Your task to perform on an android device: open app "Reddit" (install if not already installed) Image 0: 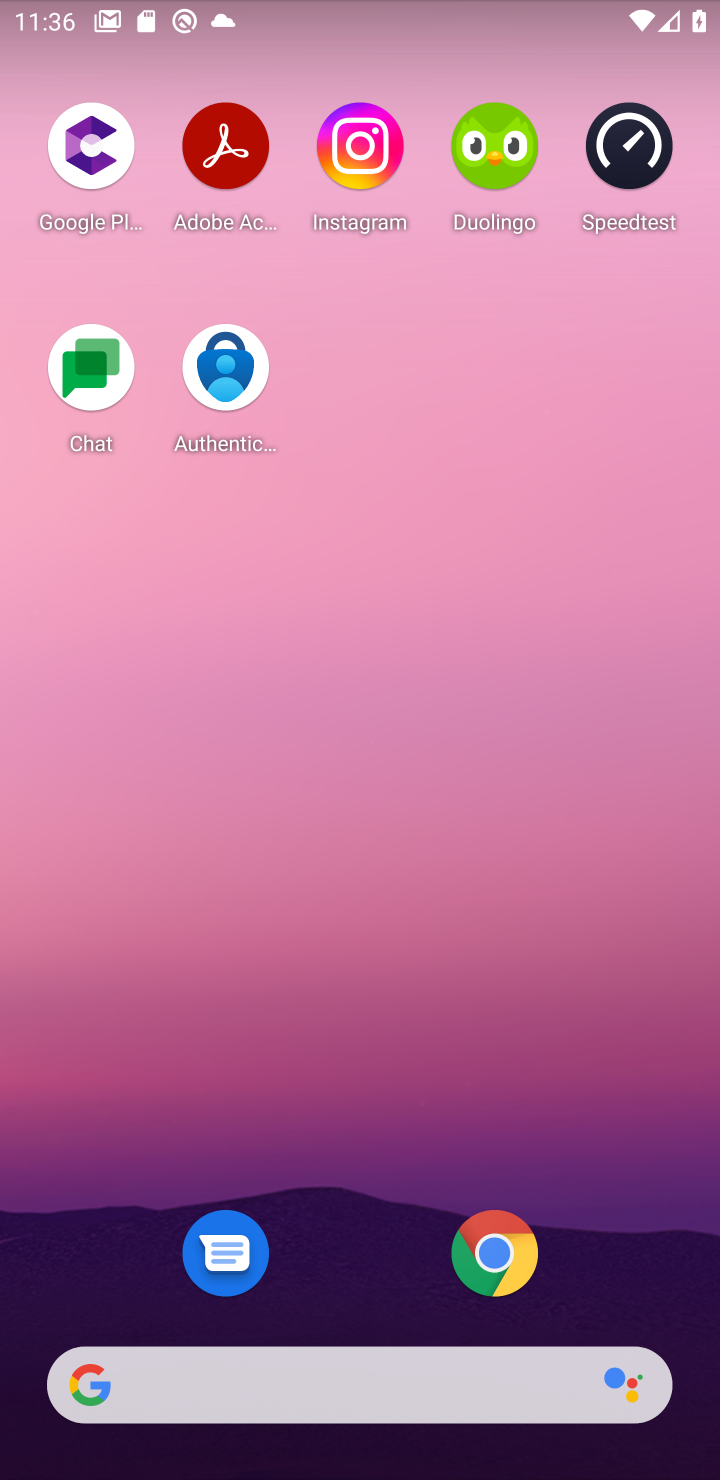
Step 0: drag from (460, 1016) to (464, 215)
Your task to perform on an android device: open app "Reddit" (install if not already installed) Image 1: 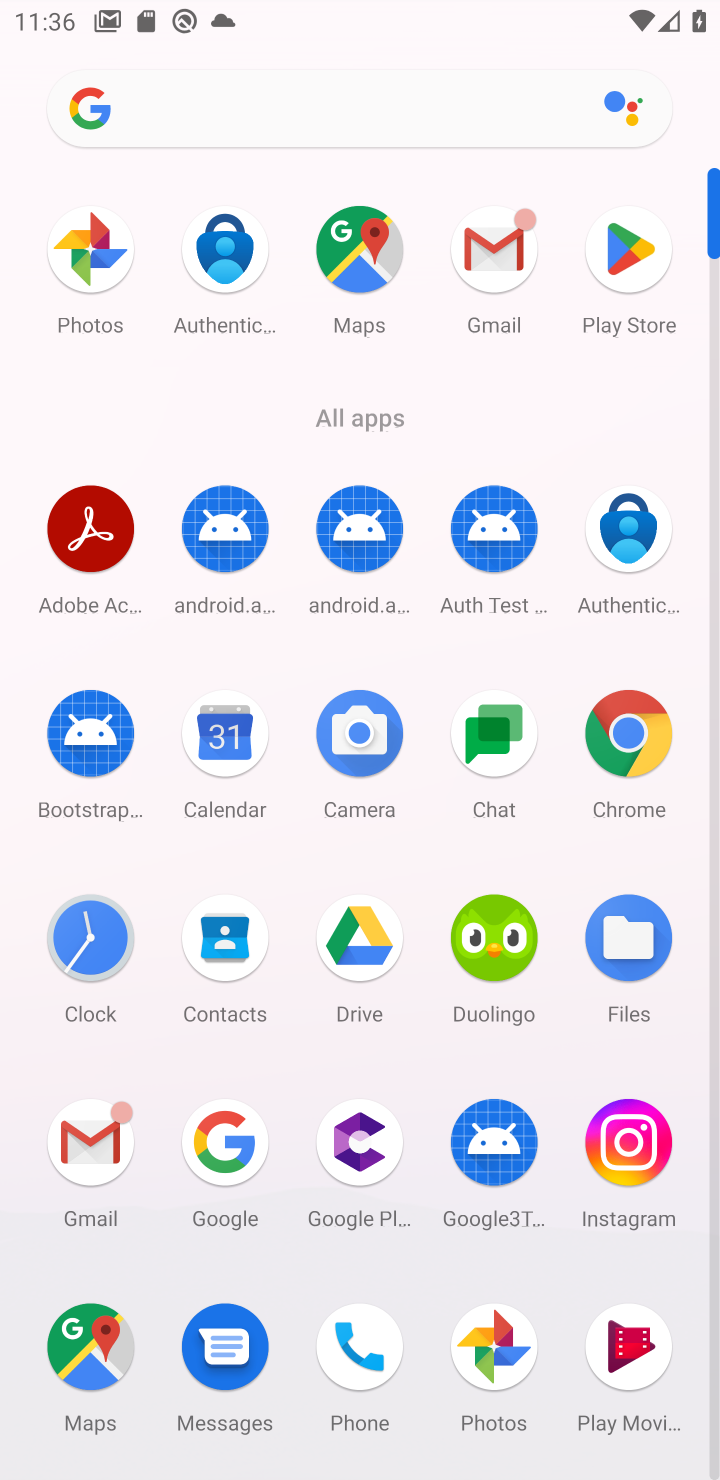
Step 1: drag from (422, 1259) to (505, 378)
Your task to perform on an android device: open app "Reddit" (install if not already installed) Image 2: 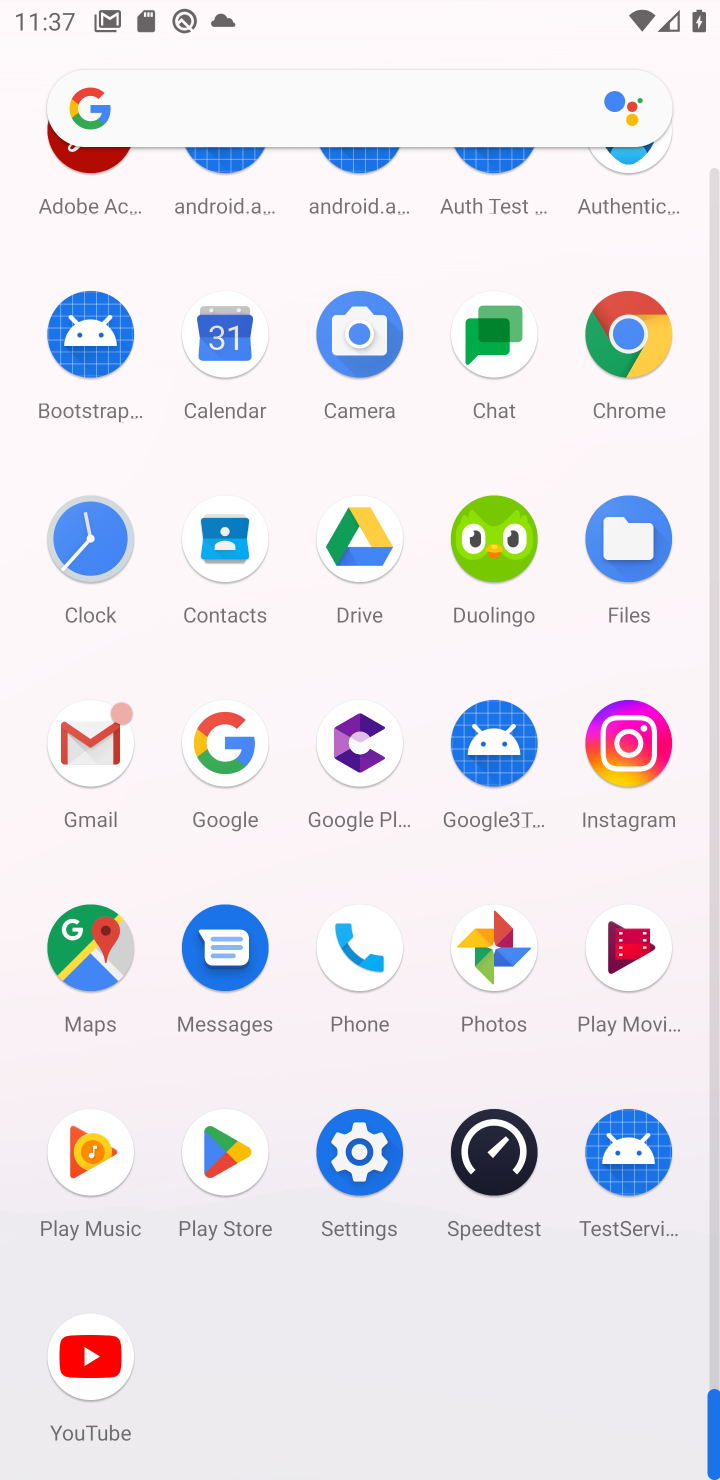
Step 2: click (223, 1196)
Your task to perform on an android device: open app "Reddit" (install if not already installed) Image 3: 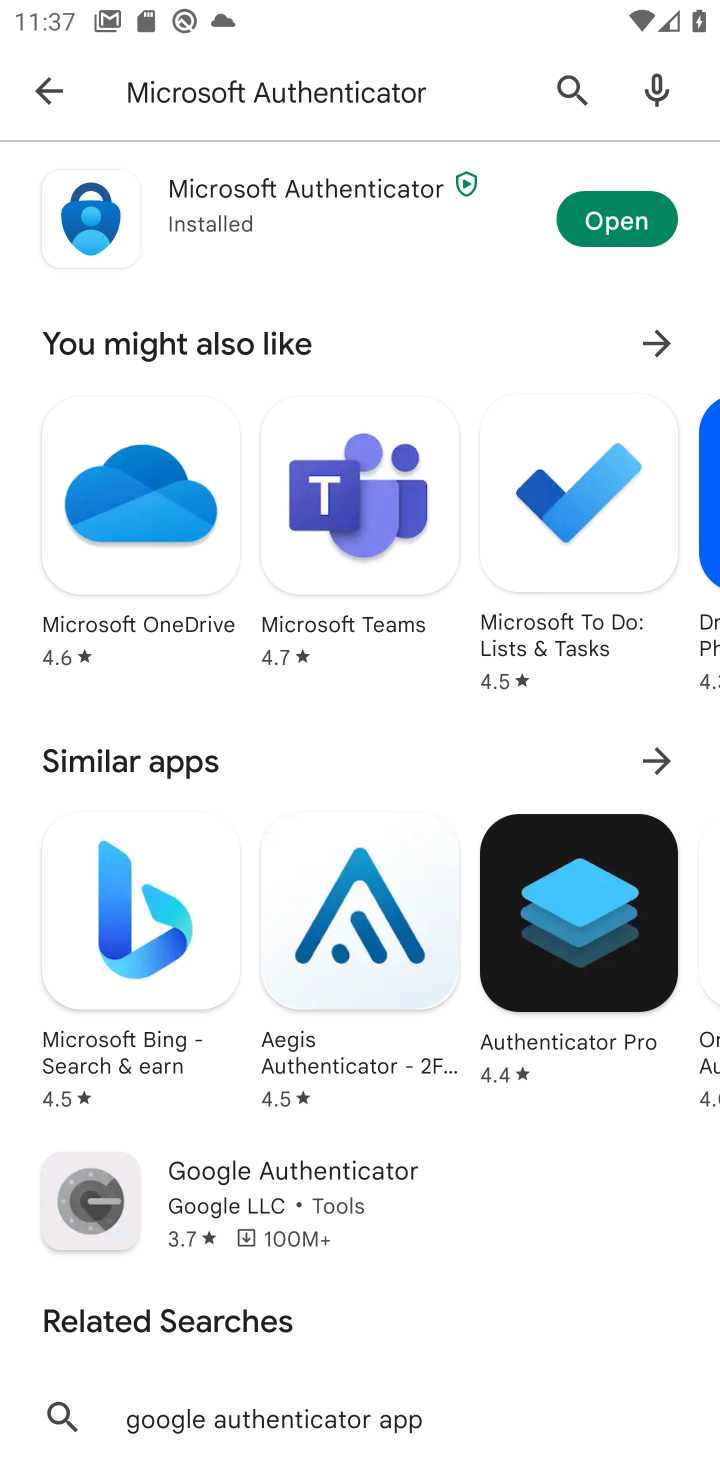
Step 3: click (375, 92)
Your task to perform on an android device: open app "Reddit" (install if not already installed) Image 4: 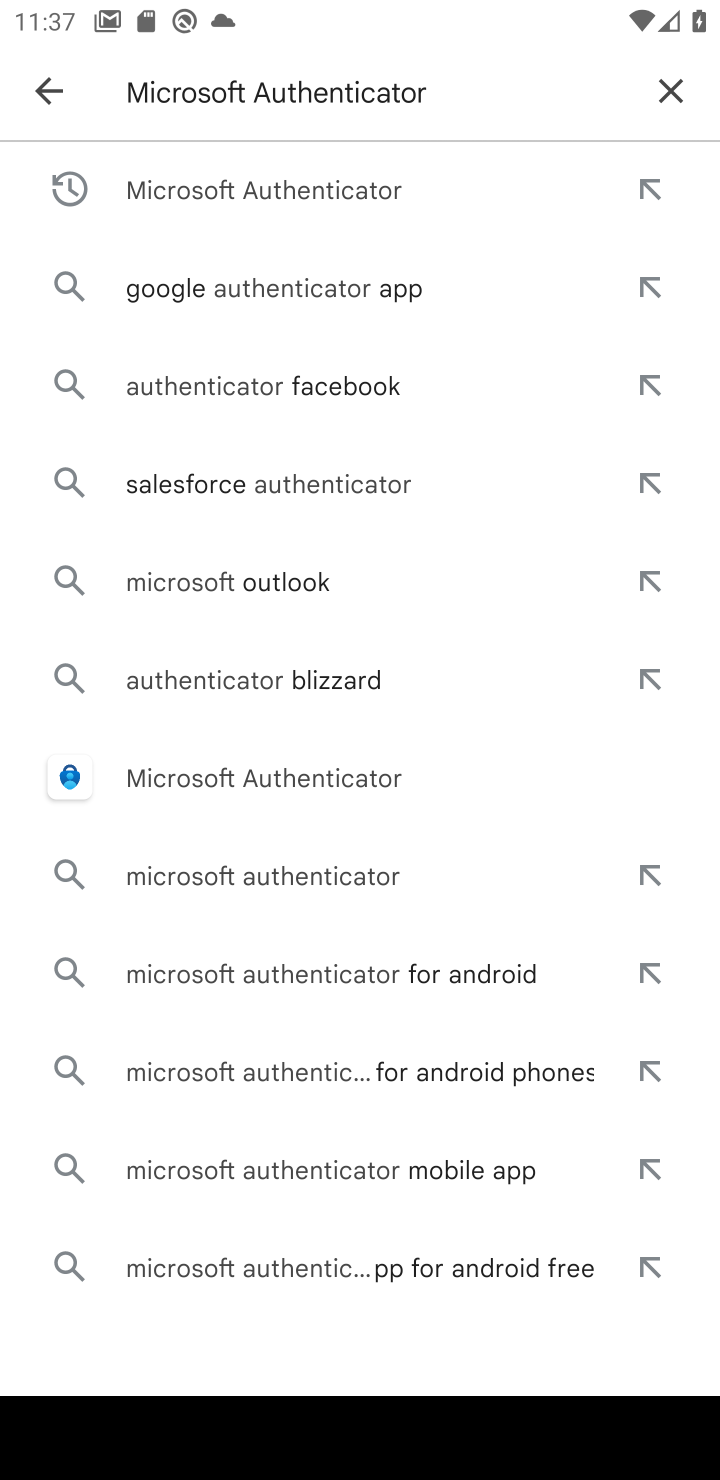
Step 4: click (677, 83)
Your task to perform on an android device: open app "Reddit" (install if not already installed) Image 5: 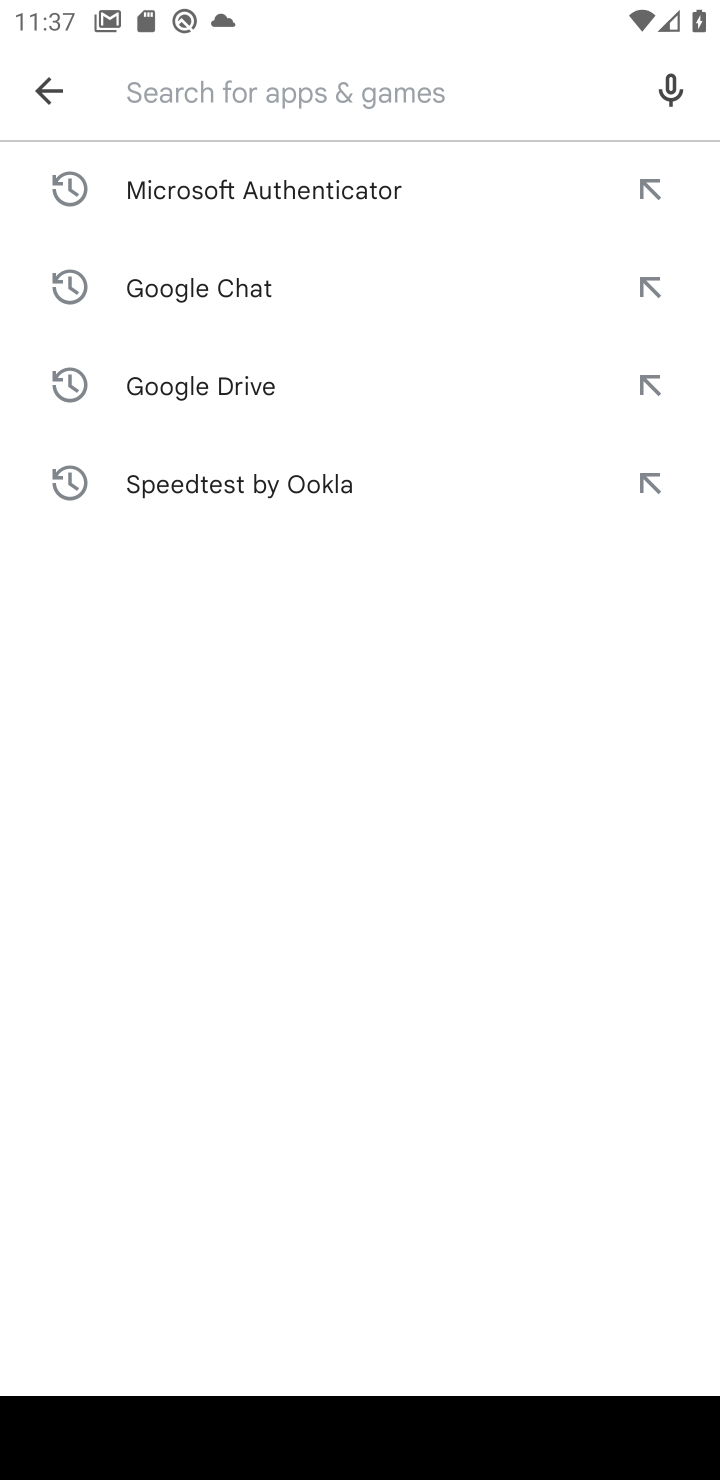
Step 5: type "Reddit"
Your task to perform on an android device: open app "Reddit" (install if not already installed) Image 6: 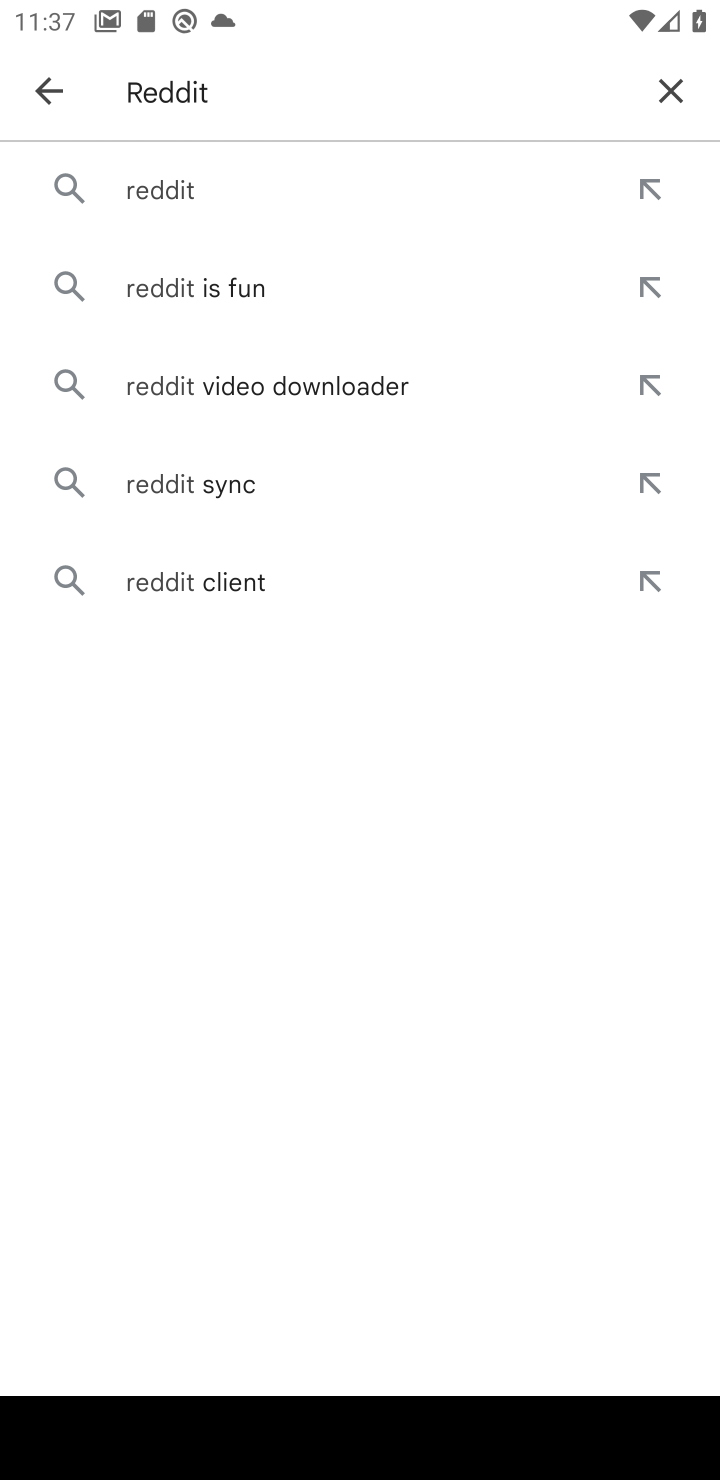
Step 6: press enter
Your task to perform on an android device: open app "Reddit" (install if not already installed) Image 7: 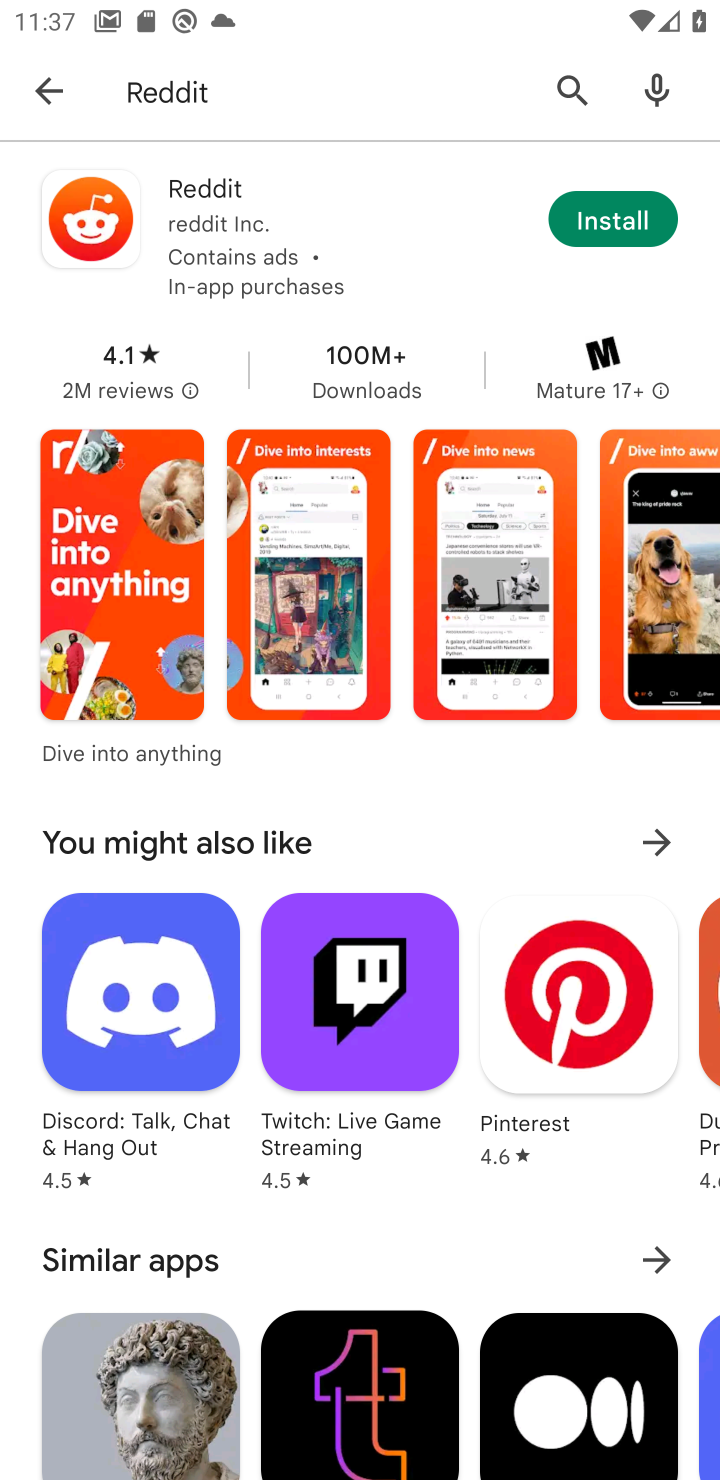
Step 7: click (620, 221)
Your task to perform on an android device: open app "Reddit" (install if not already installed) Image 8: 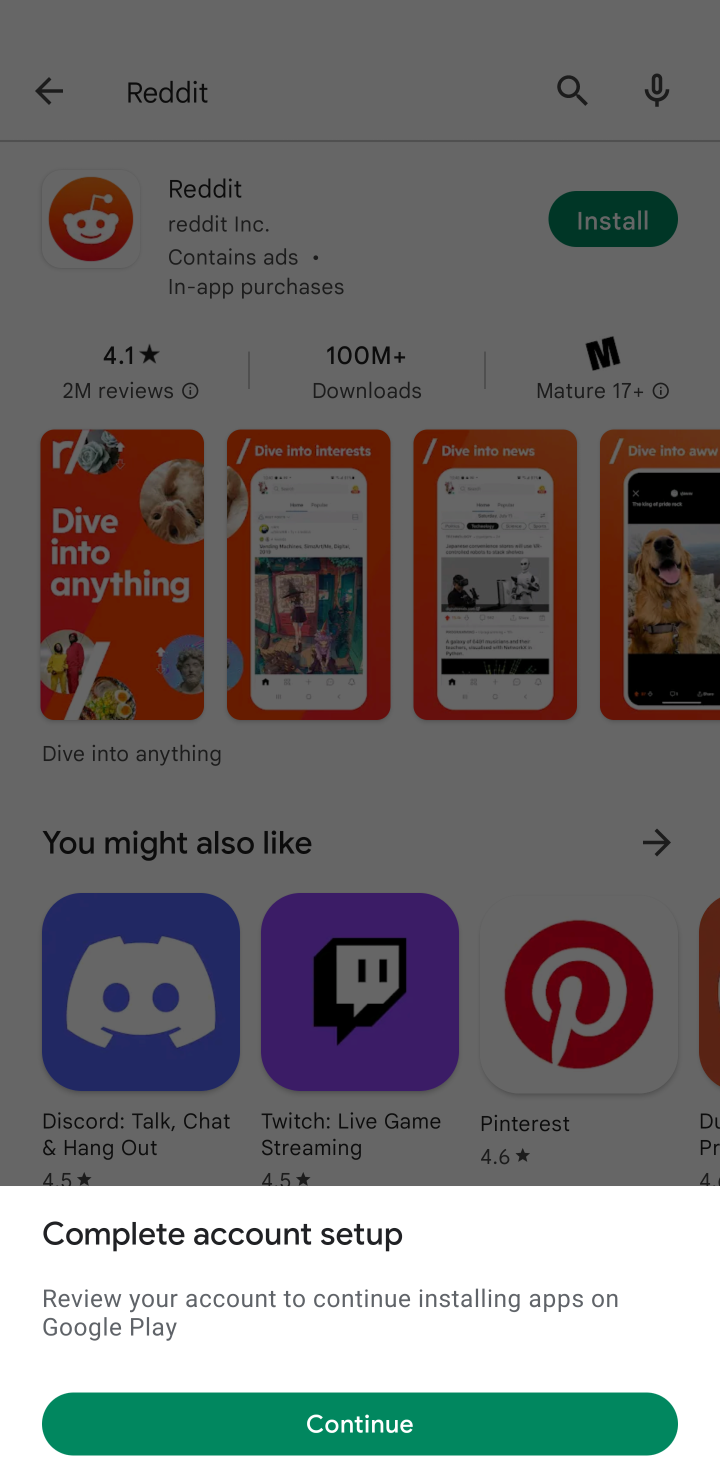
Step 8: click (444, 1424)
Your task to perform on an android device: open app "Reddit" (install if not already installed) Image 9: 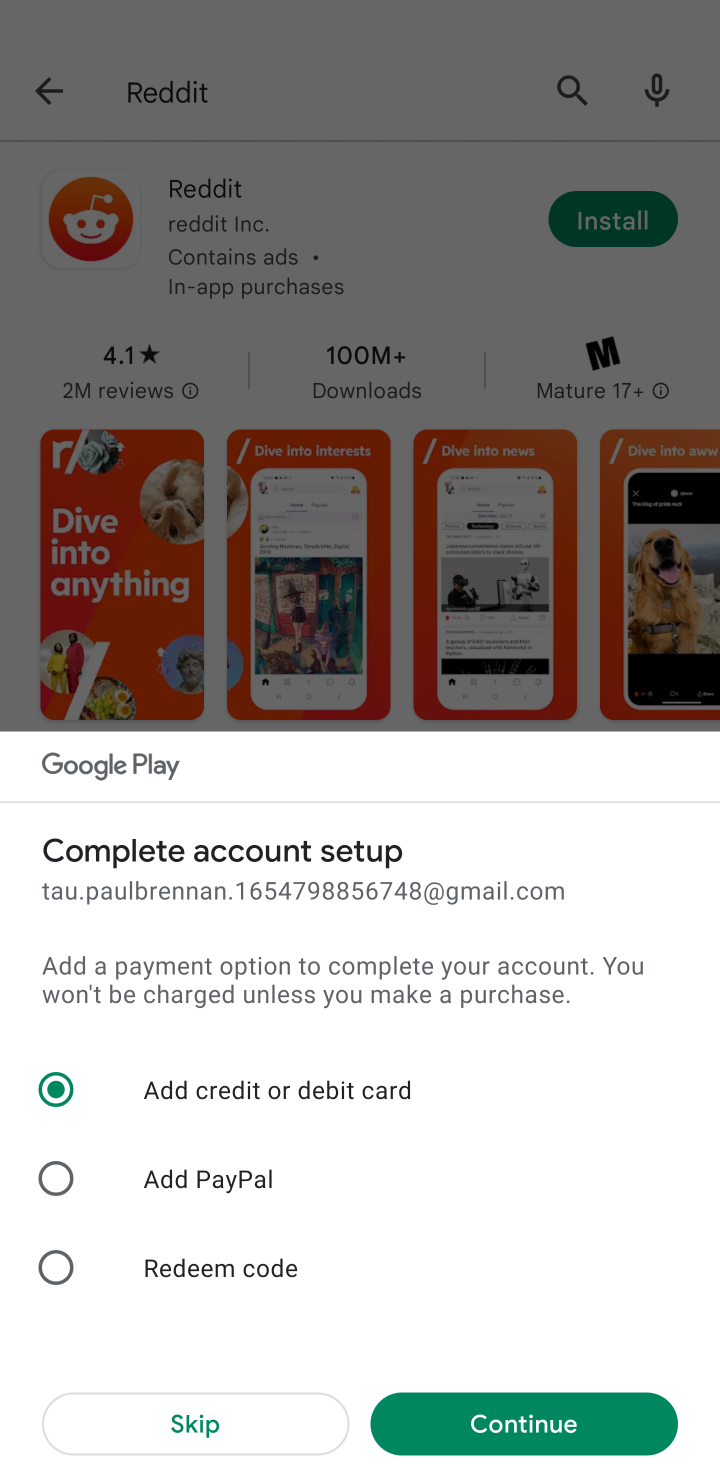
Step 9: click (185, 1411)
Your task to perform on an android device: open app "Reddit" (install if not already installed) Image 10: 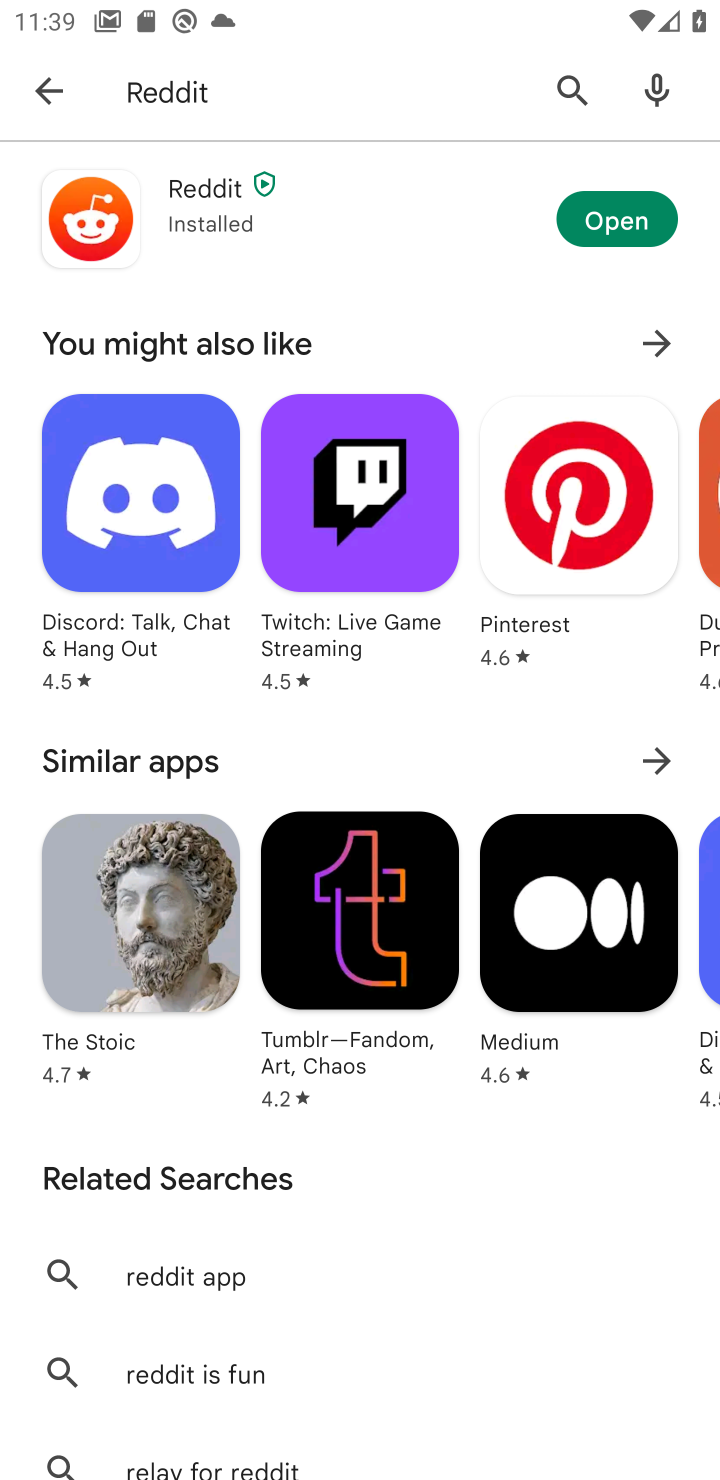
Step 10: click (633, 216)
Your task to perform on an android device: open app "Reddit" (install if not already installed) Image 11: 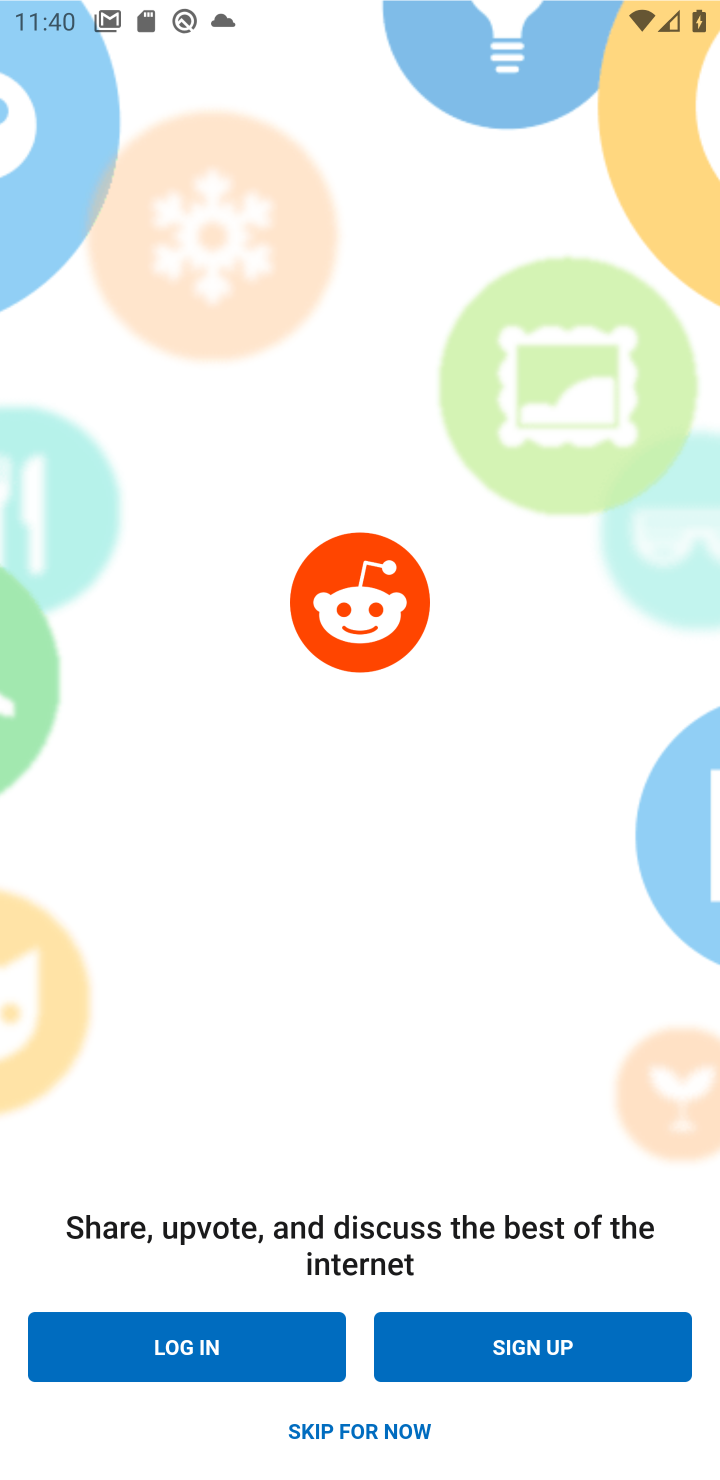
Step 11: task complete